Your task to perform on an android device: check google app version Image 0: 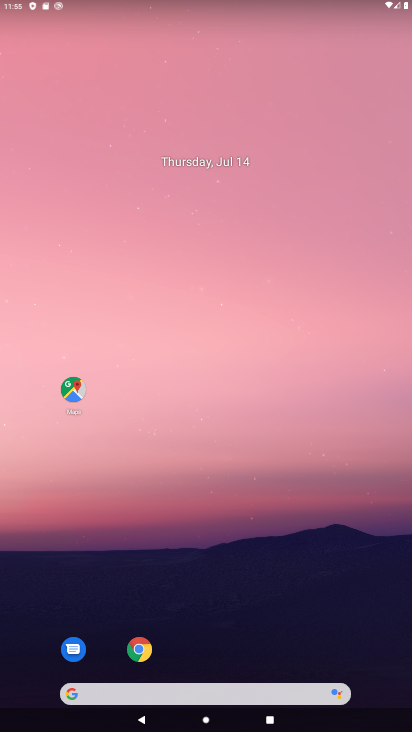
Step 0: drag from (221, 633) to (223, 215)
Your task to perform on an android device: check google app version Image 1: 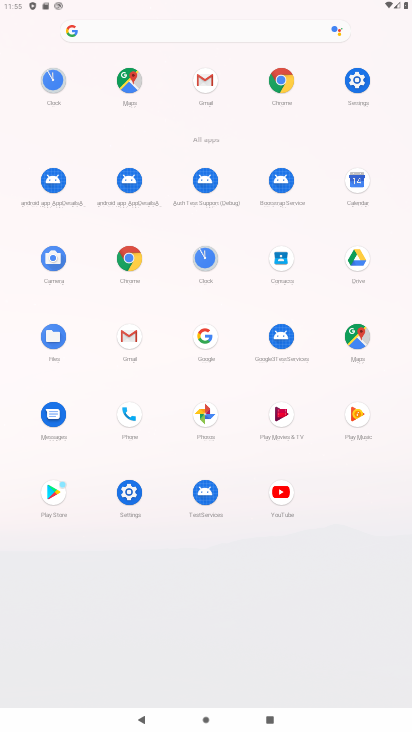
Step 1: click (200, 344)
Your task to perform on an android device: check google app version Image 2: 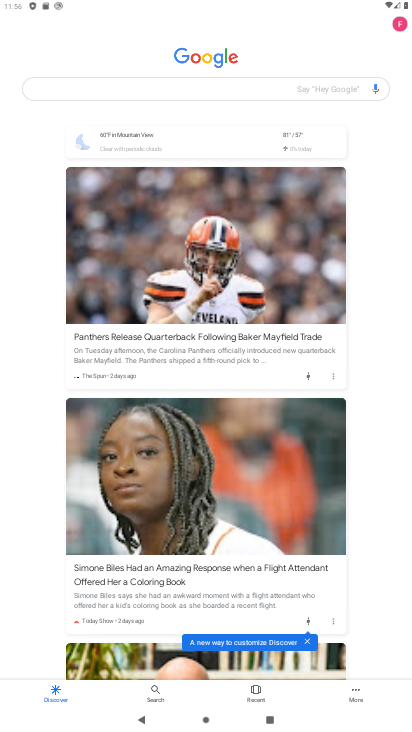
Step 2: click (361, 688)
Your task to perform on an android device: check google app version Image 3: 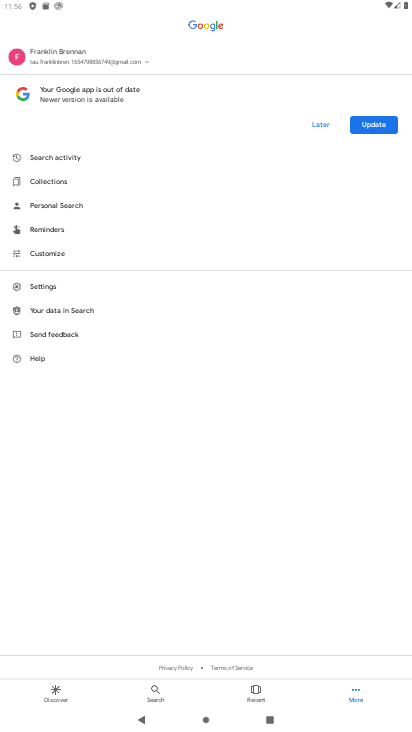
Step 3: click (51, 294)
Your task to perform on an android device: check google app version Image 4: 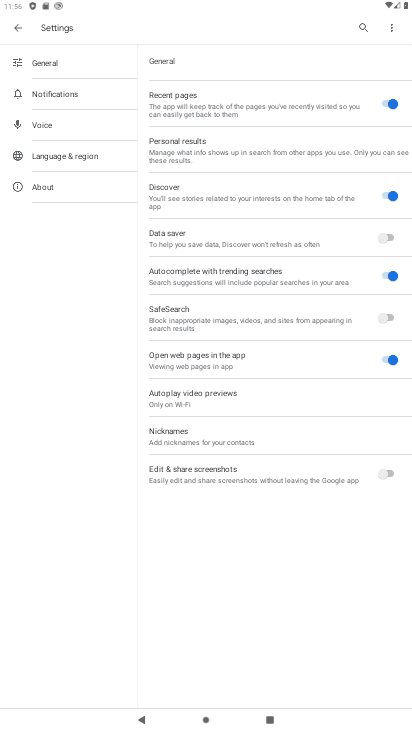
Step 4: click (45, 183)
Your task to perform on an android device: check google app version Image 5: 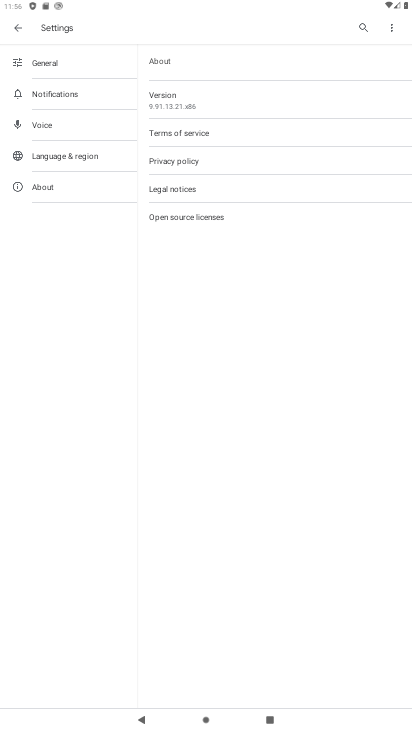
Step 5: task complete